Your task to perform on an android device: open a new tab in the chrome app Image 0: 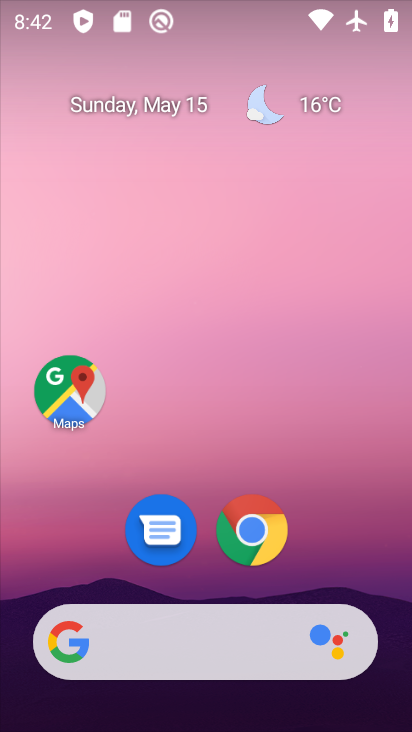
Step 0: click (247, 534)
Your task to perform on an android device: open a new tab in the chrome app Image 1: 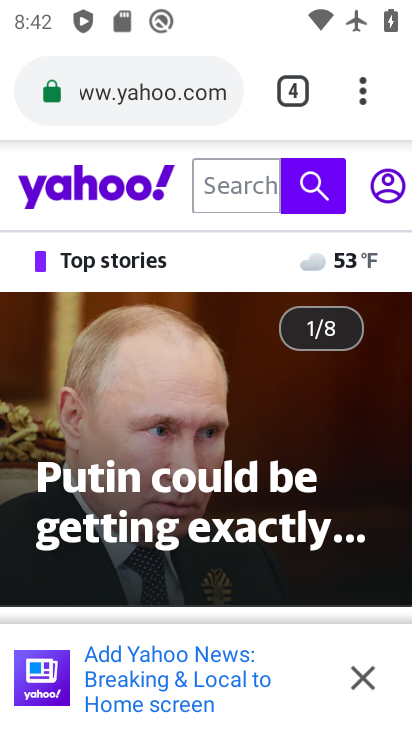
Step 1: click (363, 98)
Your task to perform on an android device: open a new tab in the chrome app Image 2: 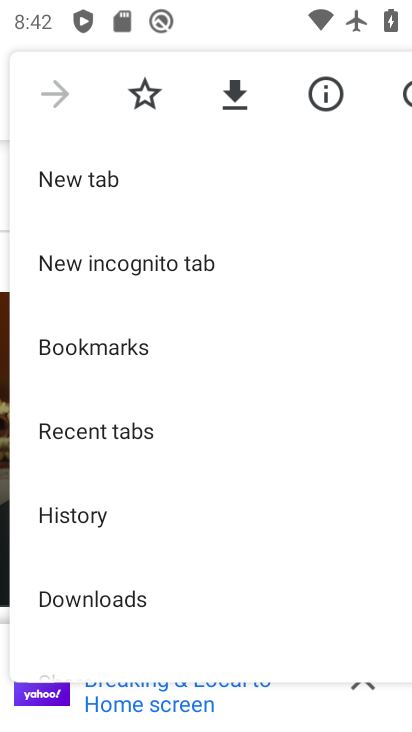
Step 2: click (64, 177)
Your task to perform on an android device: open a new tab in the chrome app Image 3: 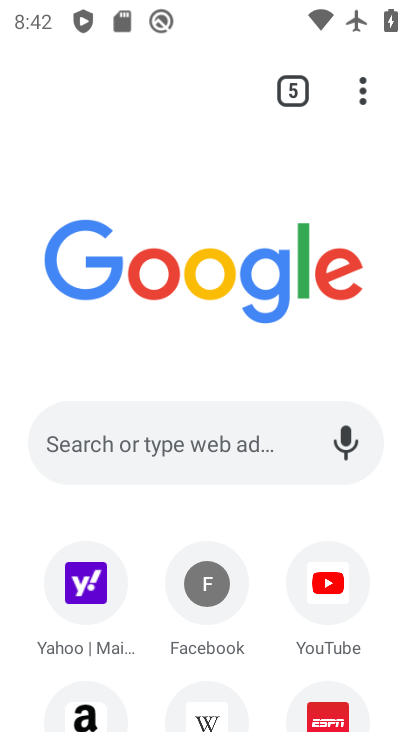
Step 3: task complete